Your task to perform on an android device: toggle notification dots Image 0: 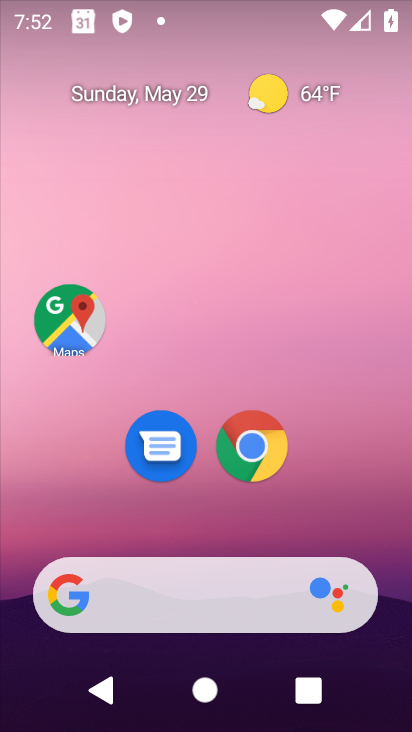
Step 0: click (410, 459)
Your task to perform on an android device: toggle notification dots Image 1: 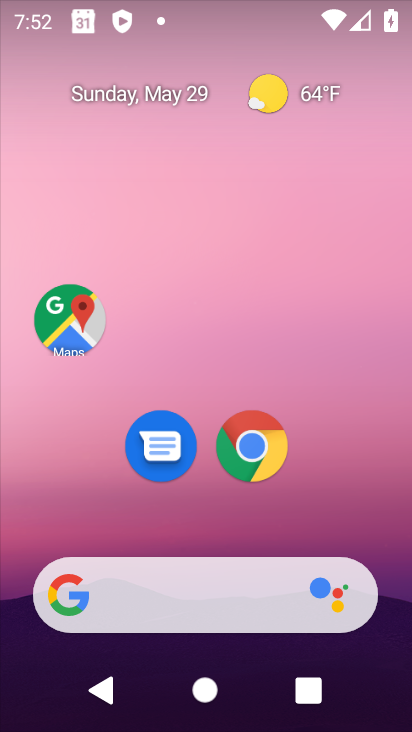
Step 1: drag from (193, 537) to (230, 34)
Your task to perform on an android device: toggle notification dots Image 2: 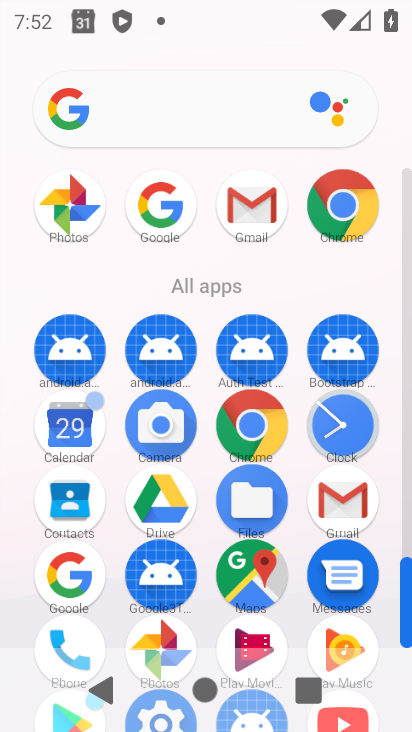
Step 2: drag from (200, 598) to (234, 190)
Your task to perform on an android device: toggle notification dots Image 3: 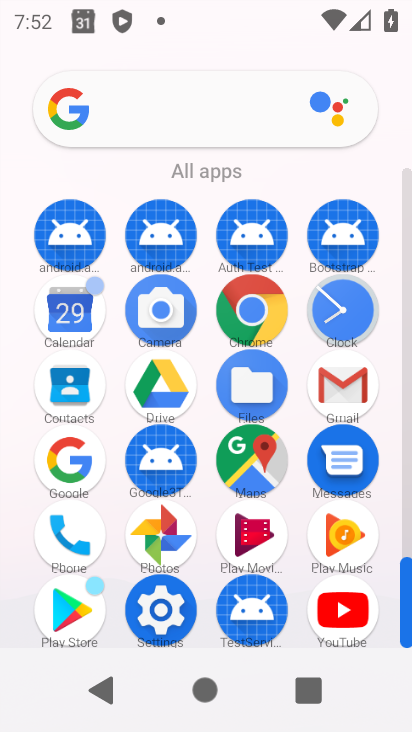
Step 3: click (183, 626)
Your task to perform on an android device: toggle notification dots Image 4: 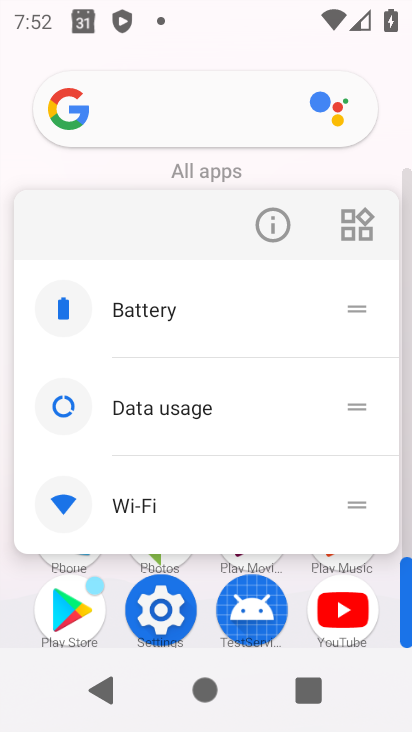
Step 4: click (272, 209)
Your task to perform on an android device: toggle notification dots Image 5: 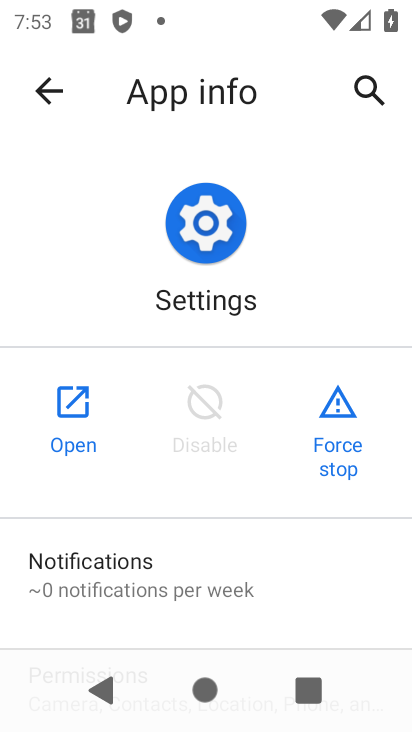
Step 5: click (83, 405)
Your task to perform on an android device: toggle notification dots Image 6: 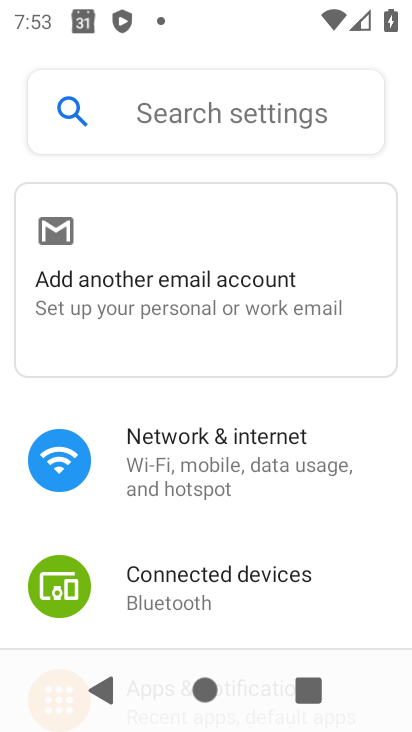
Step 6: drag from (251, 576) to (365, 43)
Your task to perform on an android device: toggle notification dots Image 7: 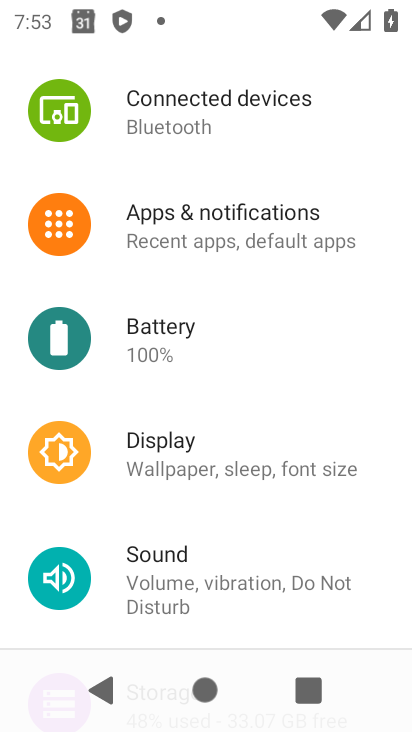
Step 7: drag from (247, 554) to (320, 47)
Your task to perform on an android device: toggle notification dots Image 8: 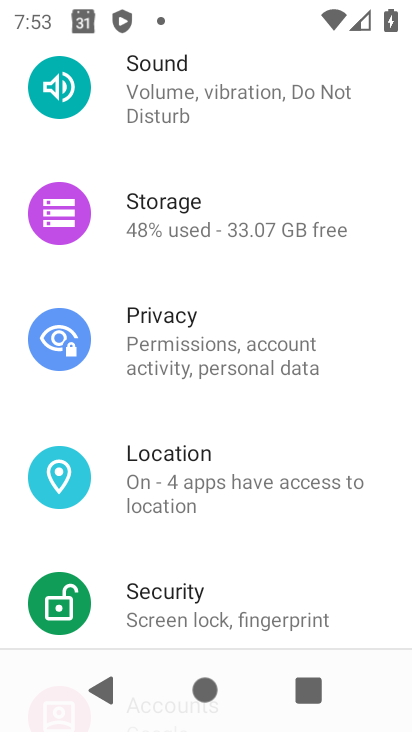
Step 8: drag from (188, 254) to (305, 672)
Your task to perform on an android device: toggle notification dots Image 9: 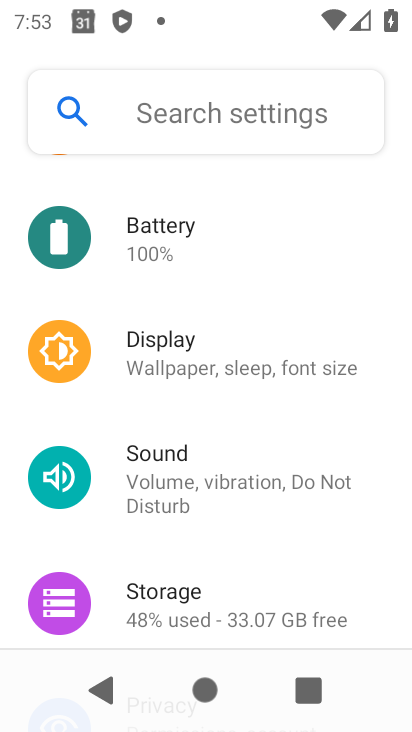
Step 9: drag from (202, 290) to (294, 664)
Your task to perform on an android device: toggle notification dots Image 10: 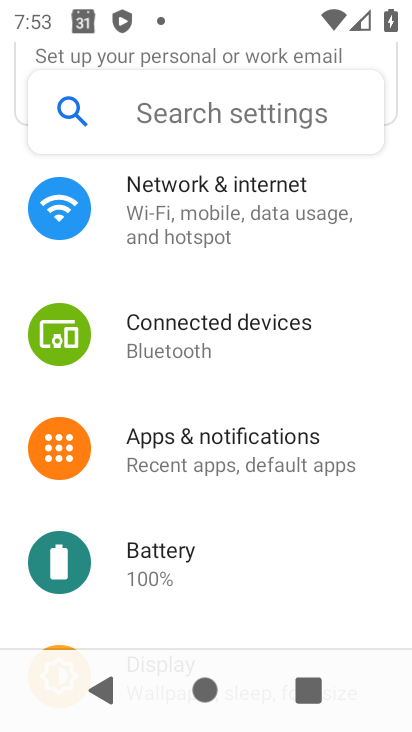
Step 10: click (204, 456)
Your task to perform on an android device: toggle notification dots Image 11: 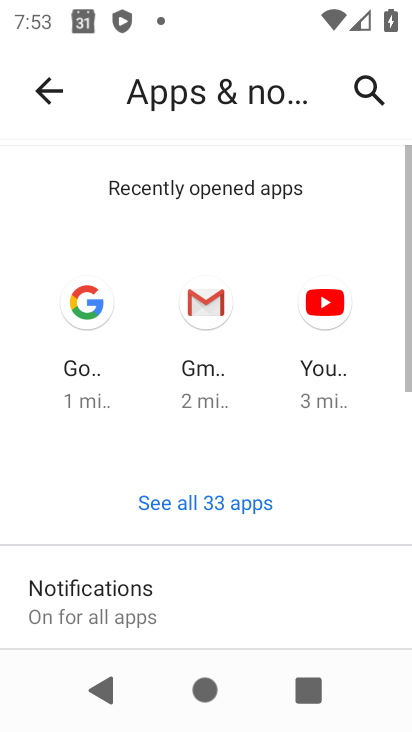
Step 11: drag from (204, 601) to (306, 145)
Your task to perform on an android device: toggle notification dots Image 12: 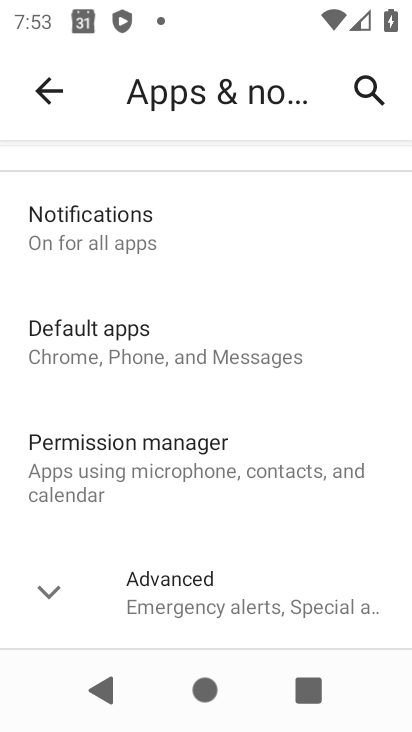
Step 12: click (153, 234)
Your task to perform on an android device: toggle notification dots Image 13: 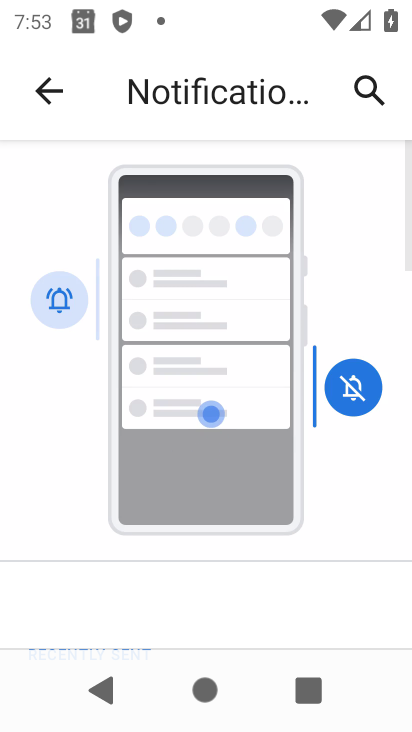
Step 13: drag from (273, 547) to (248, 14)
Your task to perform on an android device: toggle notification dots Image 14: 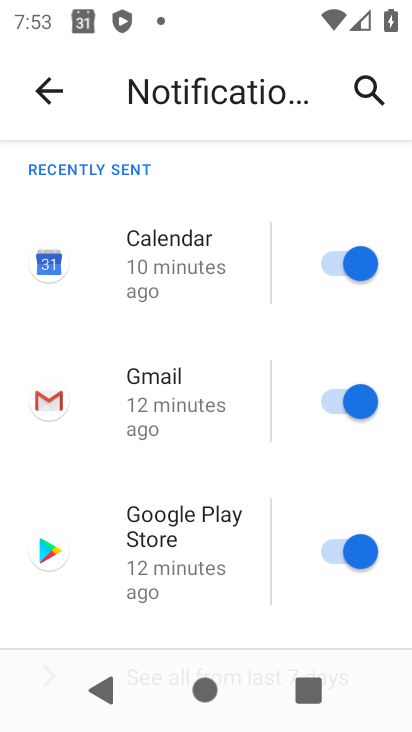
Step 14: drag from (197, 605) to (158, 20)
Your task to perform on an android device: toggle notification dots Image 15: 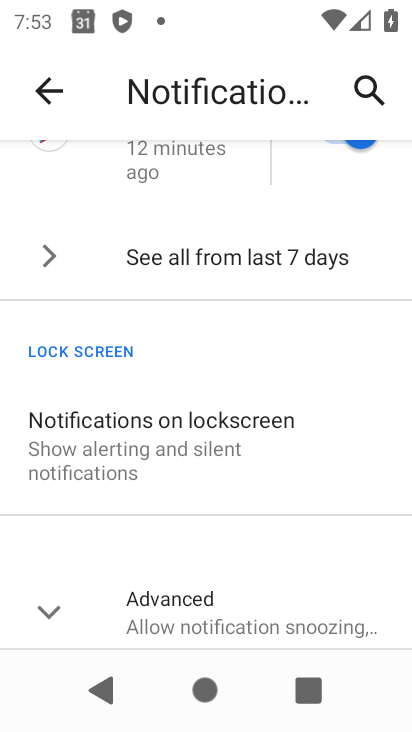
Step 15: click (139, 598)
Your task to perform on an android device: toggle notification dots Image 16: 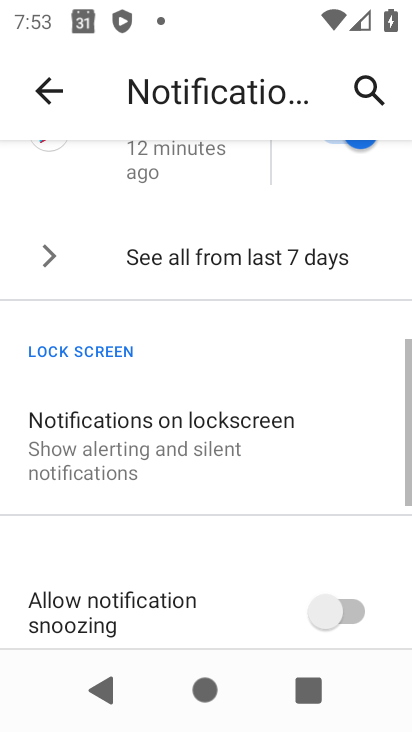
Step 16: drag from (209, 573) to (348, 23)
Your task to perform on an android device: toggle notification dots Image 17: 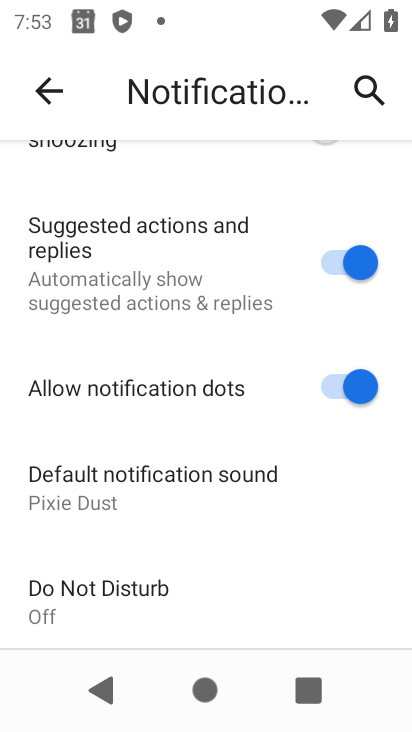
Step 17: click (358, 374)
Your task to perform on an android device: toggle notification dots Image 18: 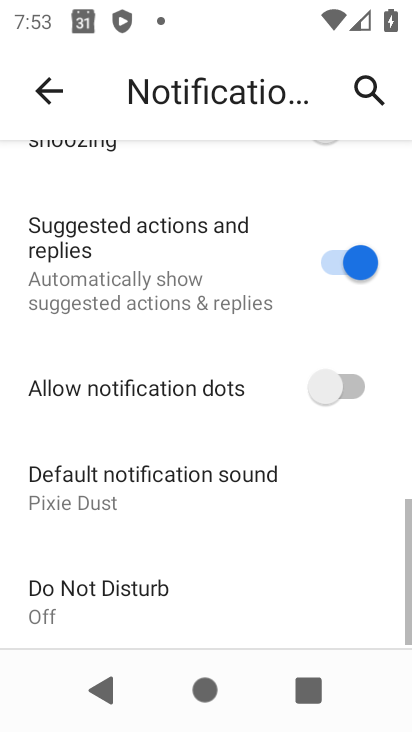
Step 18: task complete